Your task to perform on an android device: toggle improve location accuracy Image 0: 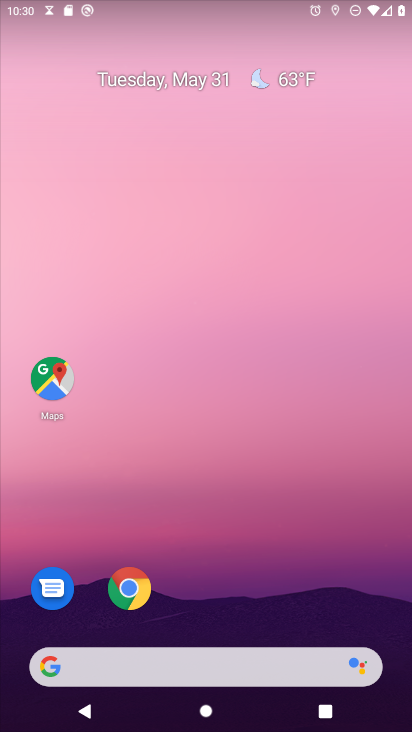
Step 0: drag from (269, 594) to (170, 110)
Your task to perform on an android device: toggle improve location accuracy Image 1: 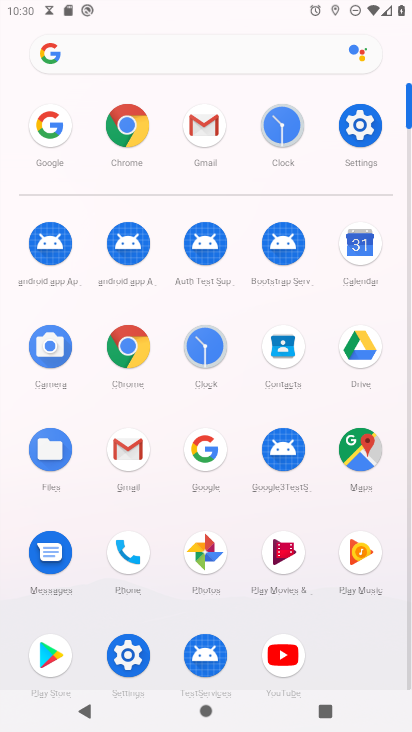
Step 1: click (360, 125)
Your task to perform on an android device: toggle improve location accuracy Image 2: 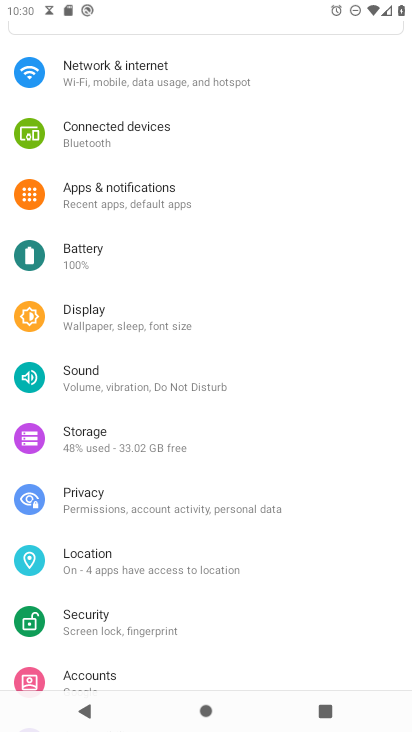
Step 2: click (151, 559)
Your task to perform on an android device: toggle improve location accuracy Image 3: 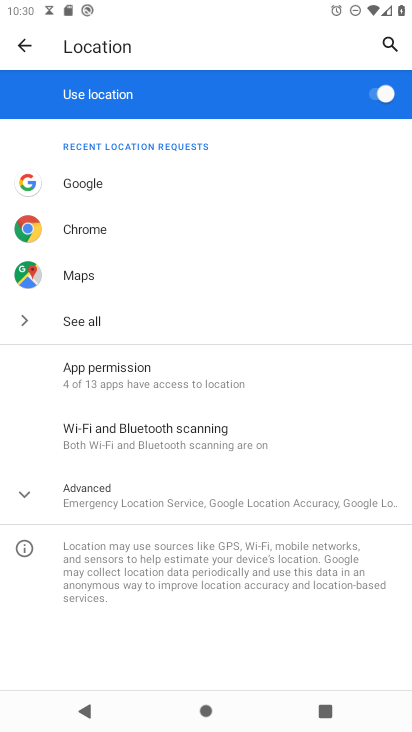
Step 3: click (124, 498)
Your task to perform on an android device: toggle improve location accuracy Image 4: 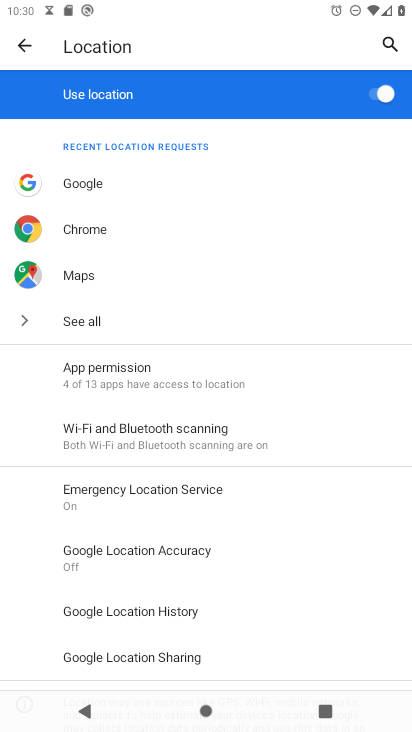
Step 4: drag from (146, 577) to (172, 512)
Your task to perform on an android device: toggle improve location accuracy Image 5: 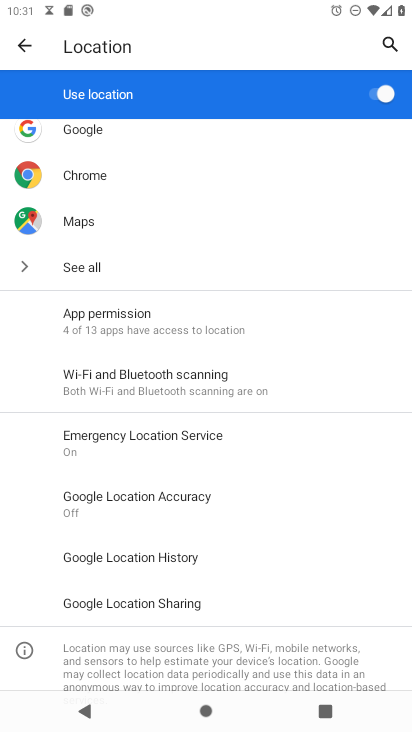
Step 5: click (197, 493)
Your task to perform on an android device: toggle improve location accuracy Image 6: 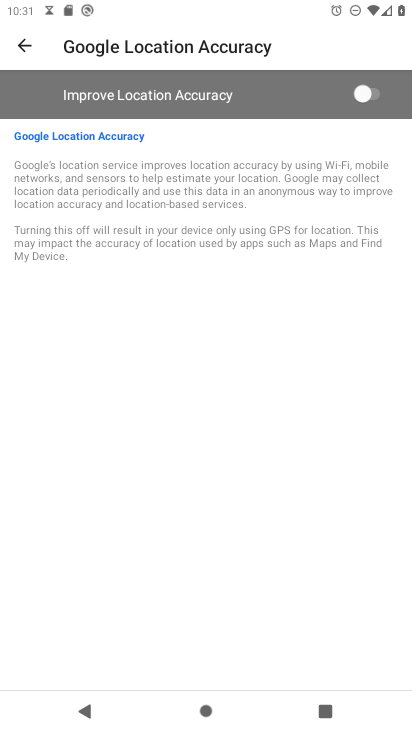
Step 6: click (366, 96)
Your task to perform on an android device: toggle improve location accuracy Image 7: 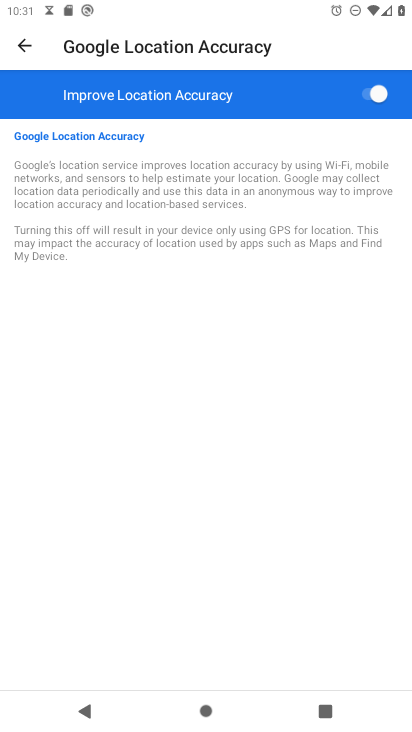
Step 7: task complete